Your task to perform on an android device: What is the news today? Image 0: 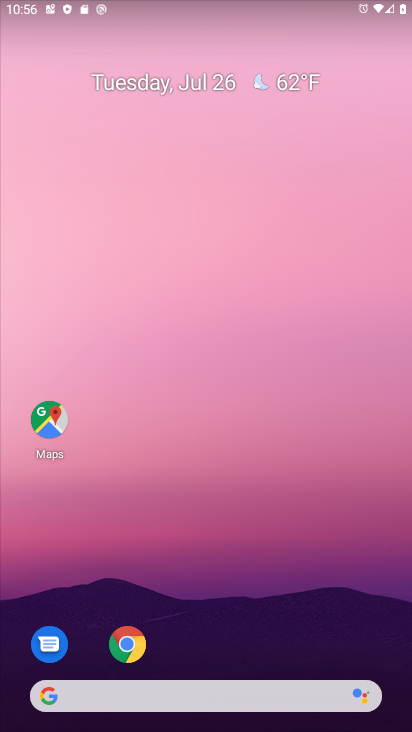
Step 0: click (239, 700)
Your task to perform on an android device: What is the news today? Image 1: 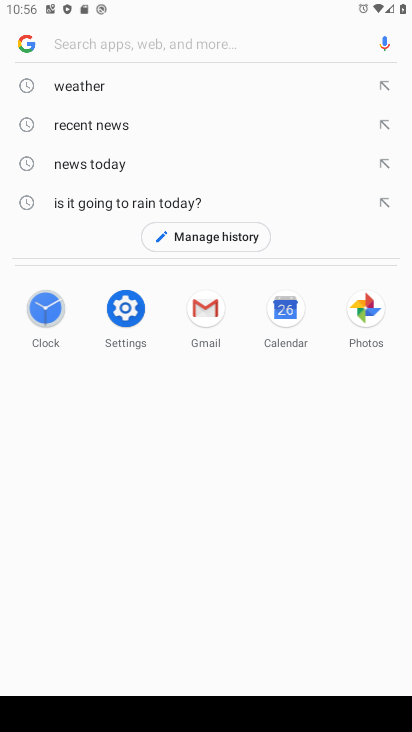
Step 1: click (114, 163)
Your task to perform on an android device: What is the news today? Image 2: 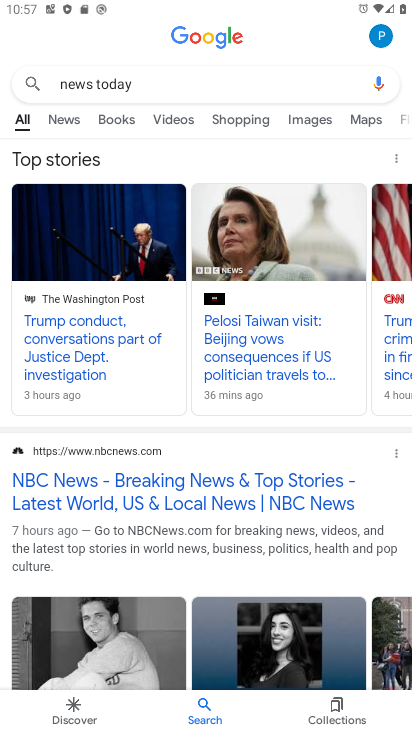
Step 2: task complete